Your task to perform on an android device: turn off javascript in the chrome app Image 0: 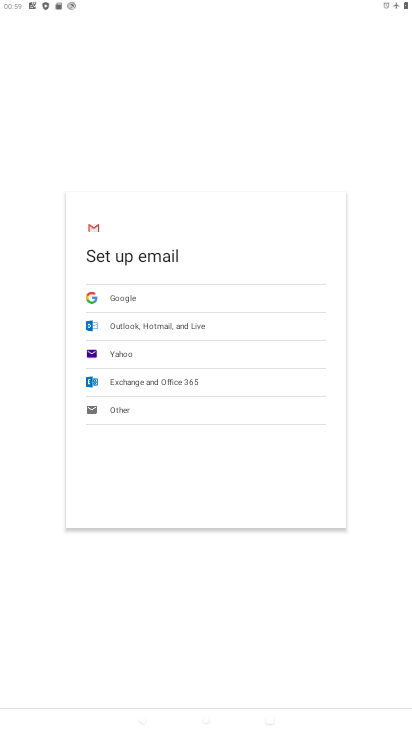
Step 0: press home button
Your task to perform on an android device: turn off javascript in the chrome app Image 1: 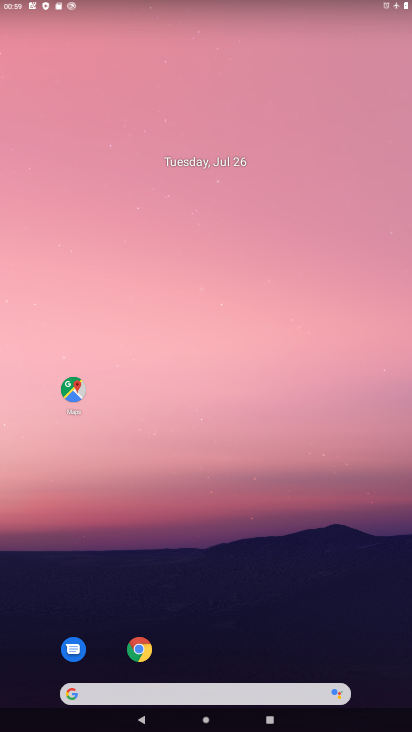
Step 1: drag from (220, 713) to (220, 220)
Your task to perform on an android device: turn off javascript in the chrome app Image 2: 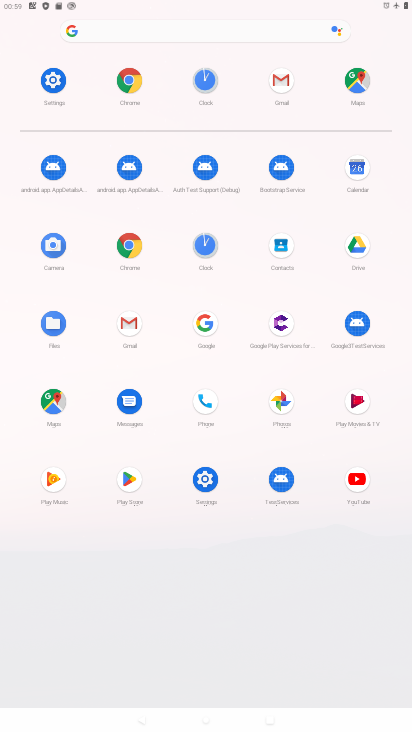
Step 2: click (133, 72)
Your task to perform on an android device: turn off javascript in the chrome app Image 3: 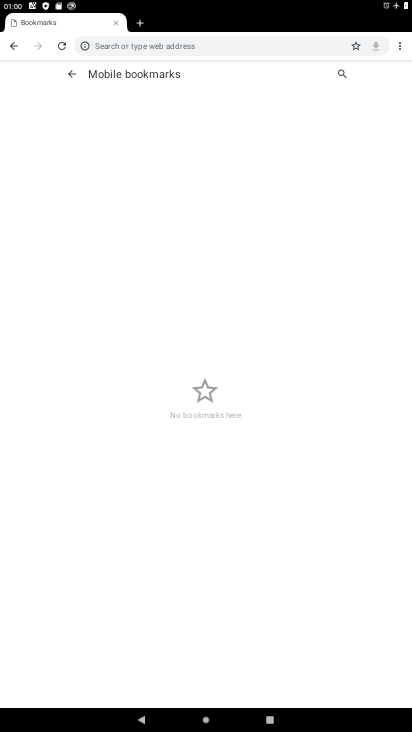
Step 3: click (401, 49)
Your task to perform on an android device: turn off javascript in the chrome app Image 4: 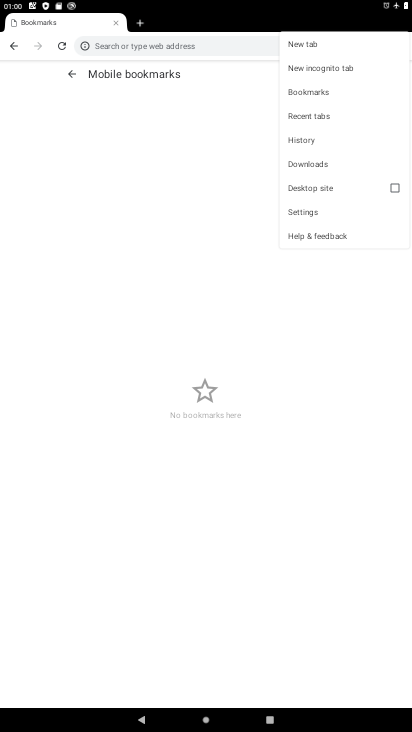
Step 4: click (303, 206)
Your task to perform on an android device: turn off javascript in the chrome app Image 5: 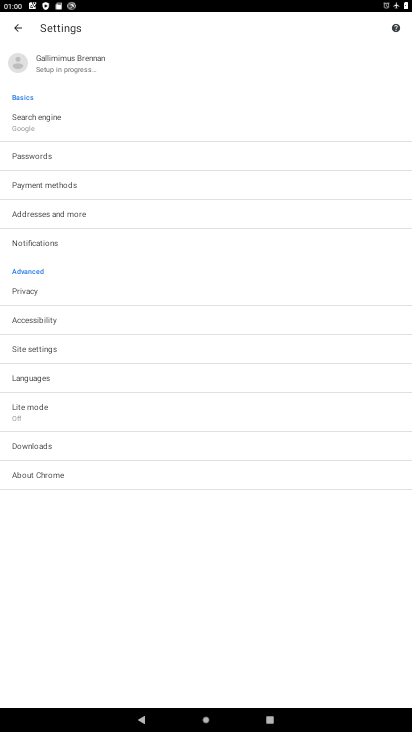
Step 5: click (47, 348)
Your task to perform on an android device: turn off javascript in the chrome app Image 6: 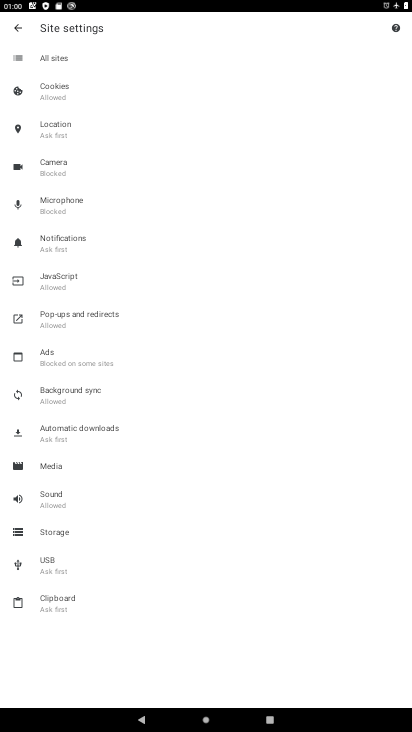
Step 6: click (53, 273)
Your task to perform on an android device: turn off javascript in the chrome app Image 7: 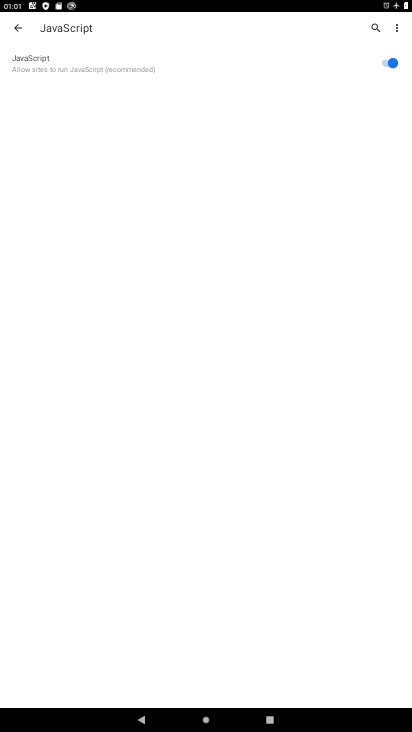
Step 7: click (388, 65)
Your task to perform on an android device: turn off javascript in the chrome app Image 8: 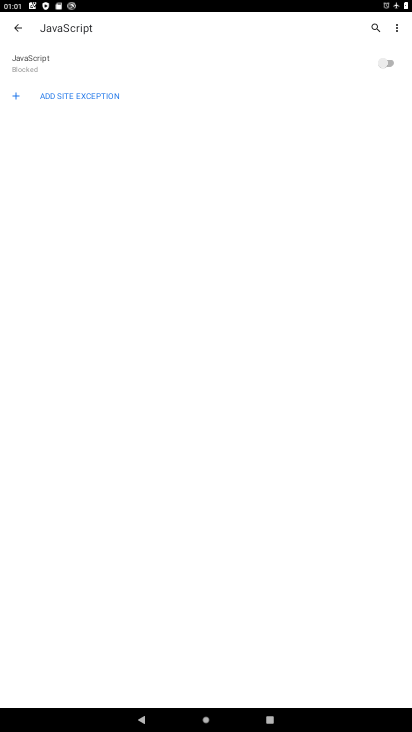
Step 8: task complete